Your task to perform on an android device: toggle pop-ups in chrome Image 0: 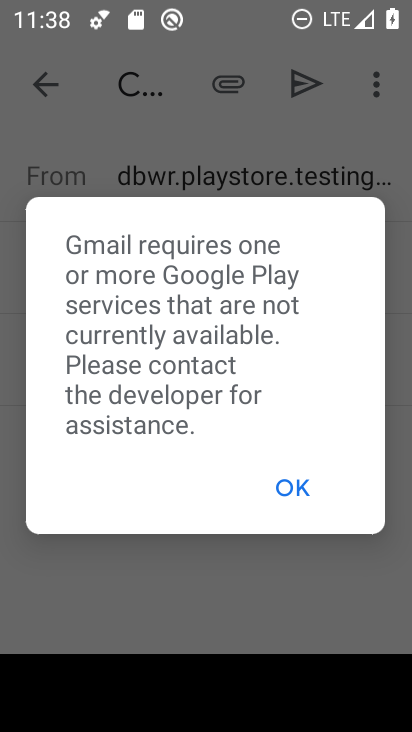
Step 0: press home button
Your task to perform on an android device: toggle pop-ups in chrome Image 1: 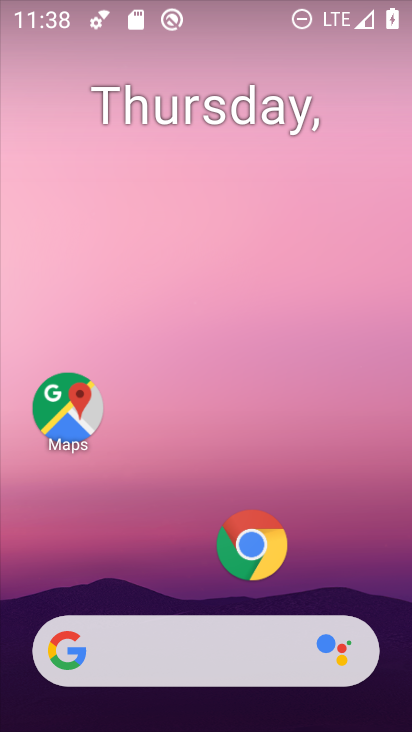
Step 1: click (242, 573)
Your task to perform on an android device: toggle pop-ups in chrome Image 2: 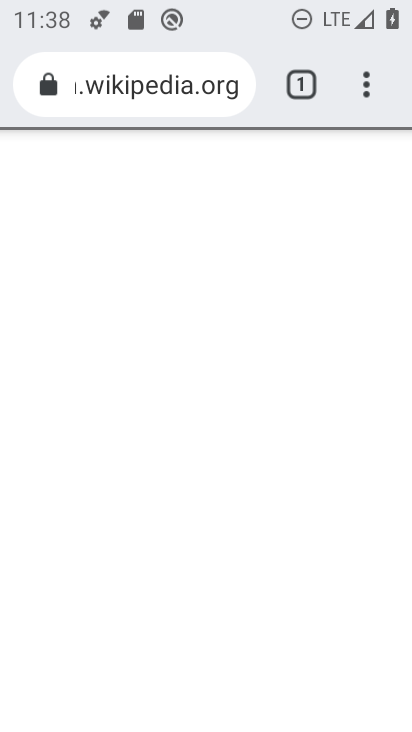
Step 2: click (352, 96)
Your task to perform on an android device: toggle pop-ups in chrome Image 3: 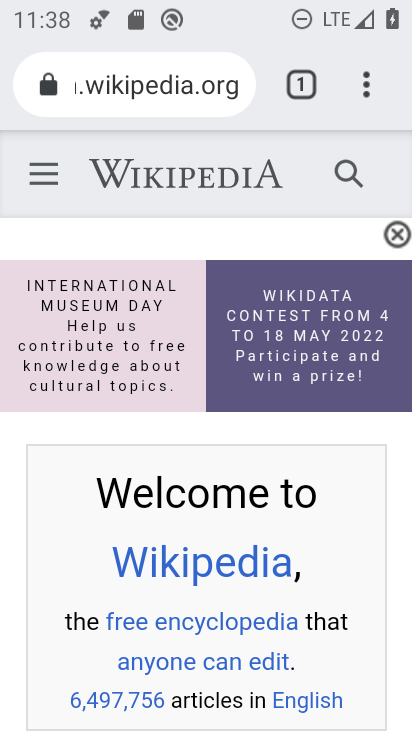
Step 3: drag from (360, 75) to (110, 611)
Your task to perform on an android device: toggle pop-ups in chrome Image 4: 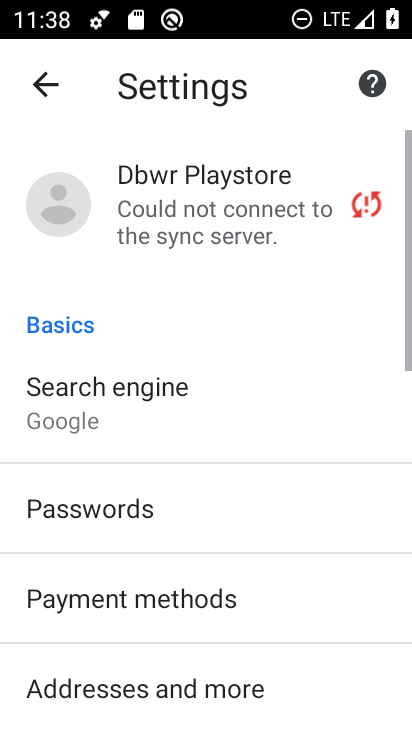
Step 4: drag from (109, 611) to (92, 41)
Your task to perform on an android device: toggle pop-ups in chrome Image 5: 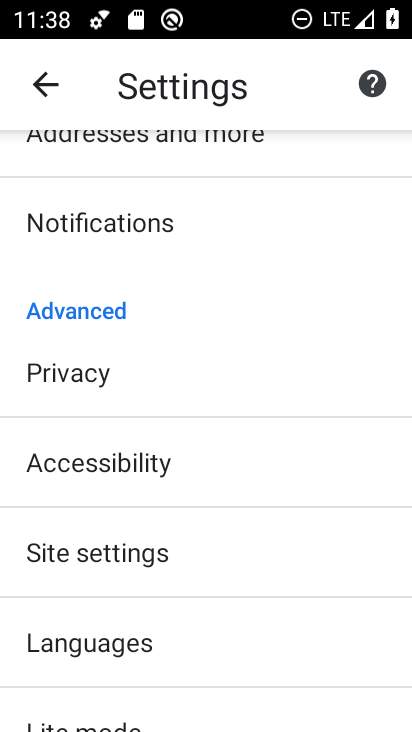
Step 5: click (91, 391)
Your task to perform on an android device: toggle pop-ups in chrome Image 6: 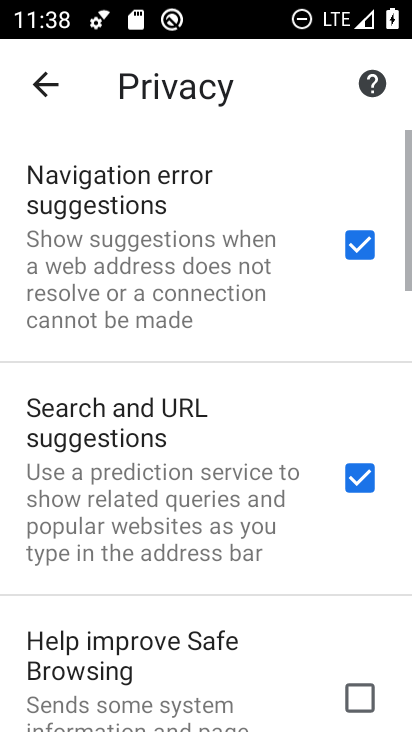
Step 6: drag from (133, 571) to (124, 26)
Your task to perform on an android device: toggle pop-ups in chrome Image 7: 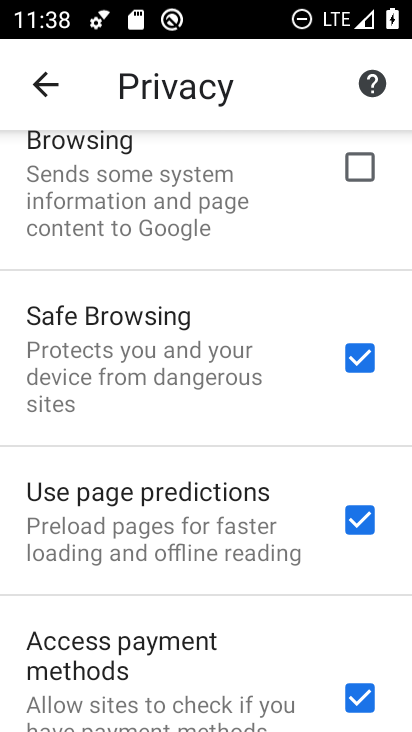
Step 7: click (37, 95)
Your task to perform on an android device: toggle pop-ups in chrome Image 8: 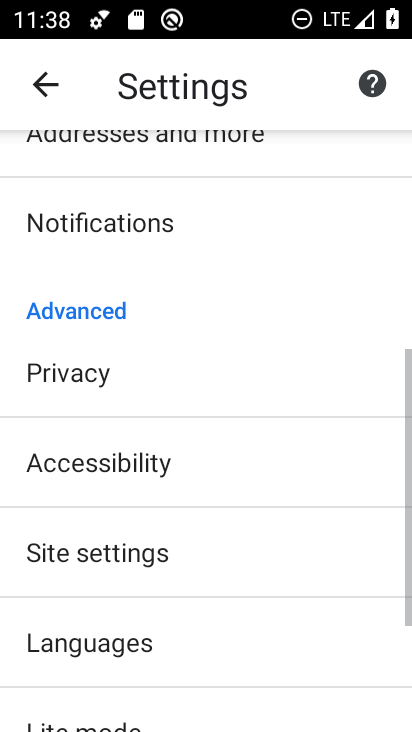
Step 8: drag from (121, 609) to (109, 361)
Your task to perform on an android device: toggle pop-ups in chrome Image 9: 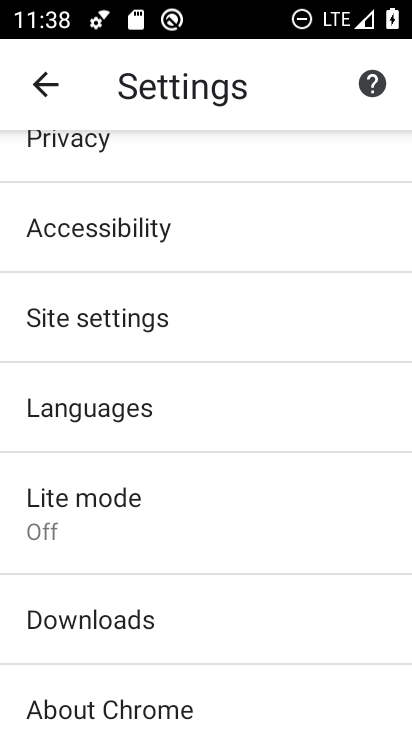
Step 9: click (106, 208)
Your task to perform on an android device: toggle pop-ups in chrome Image 10: 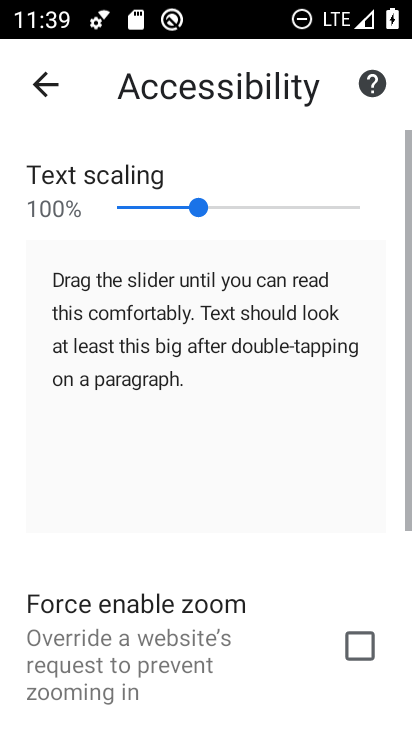
Step 10: click (36, 90)
Your task to perform on an android device: toggle pop-ups in chrome Image 11: 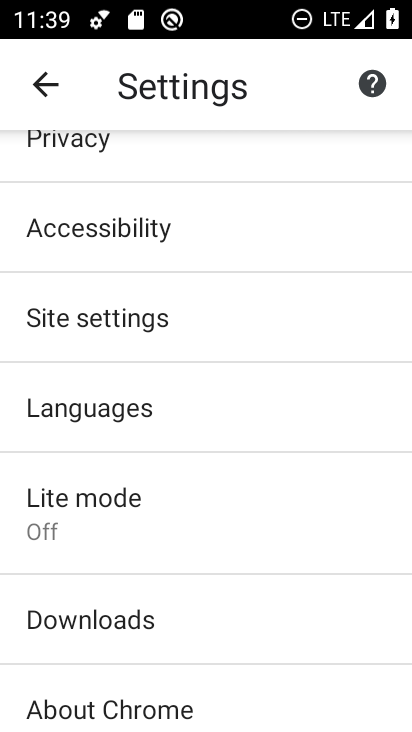
Step 11: click (130, 332)
Your task to perform on an android device: toggle pop-ups in chrome Image 12: 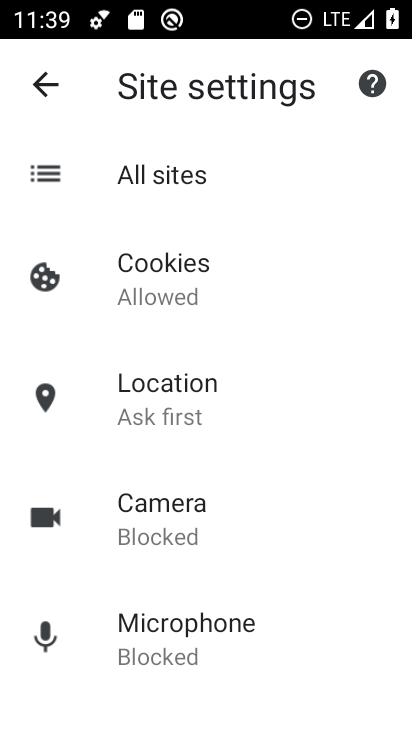
Step 12: drag from (267, 591) to (259, 198)
Your task to perform on an android device: toggle pop-ups in chrome Image 13: 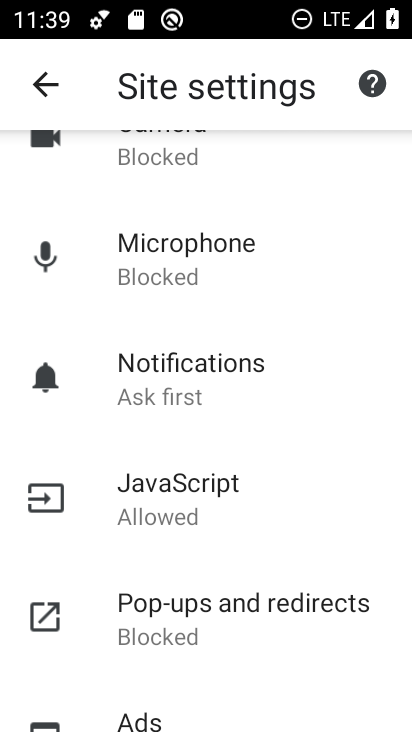
Step 13: click (217, 643)
Your task to perform on an android device: toggle pop-ups in chrome Image 14: 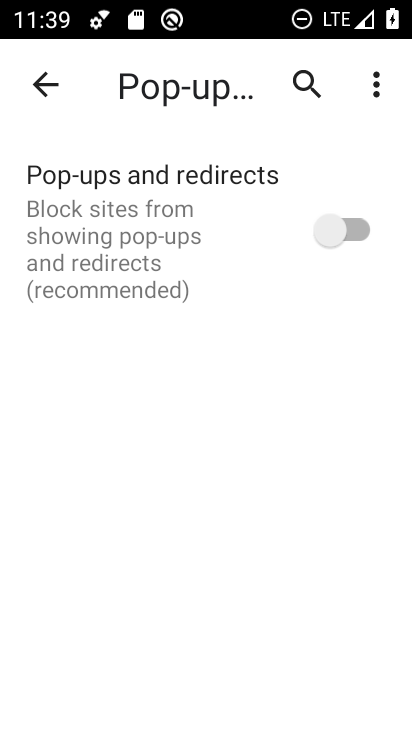
Step 14: click (325, 236)
Your task to perform on an android device: toggle pop-ups in chrome Image 15: 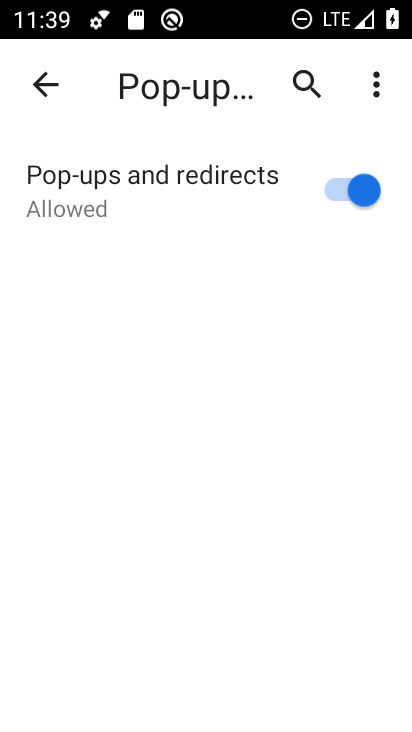
Step 15: task complete